Your task to perform on an android device: Open the web browser Image 0: 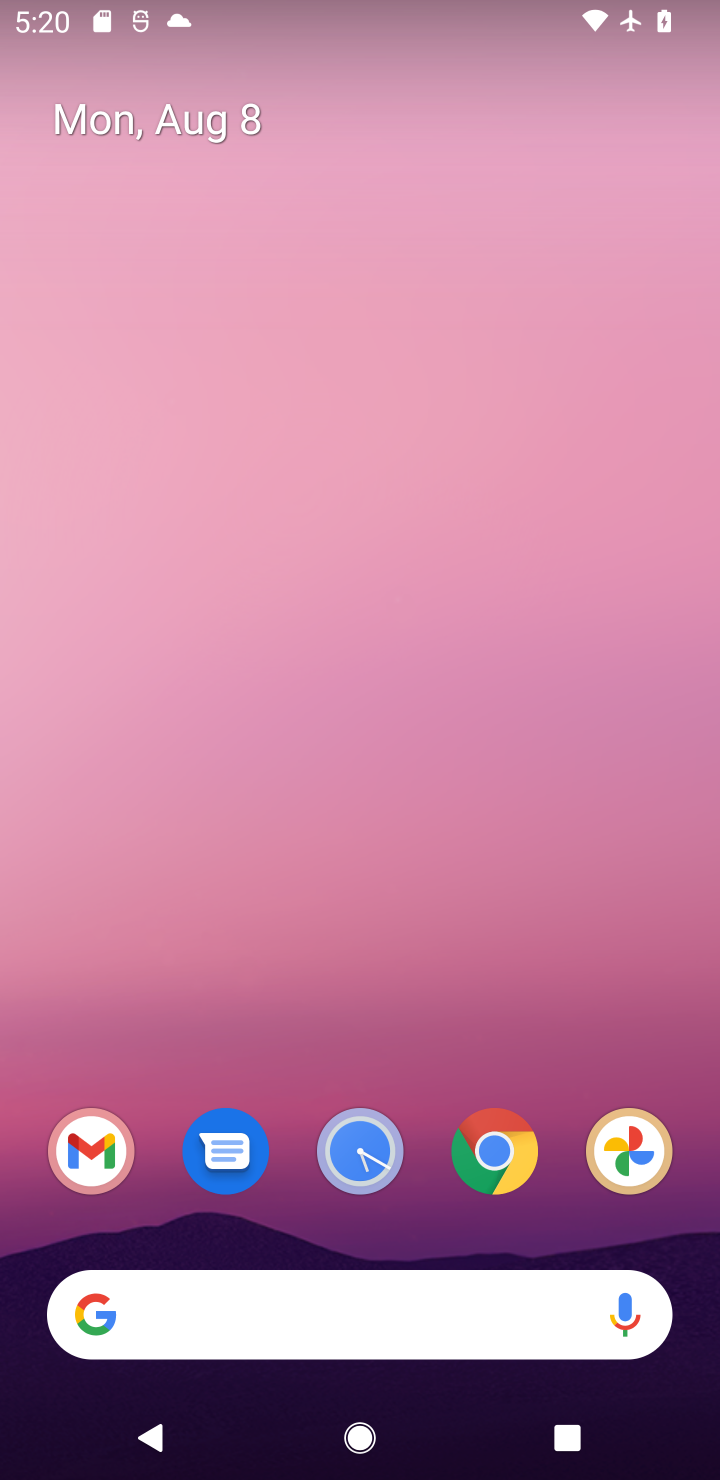
Step 0: click (497, 1165)
Your task to perform on an android device: Open the web browser Image 1: 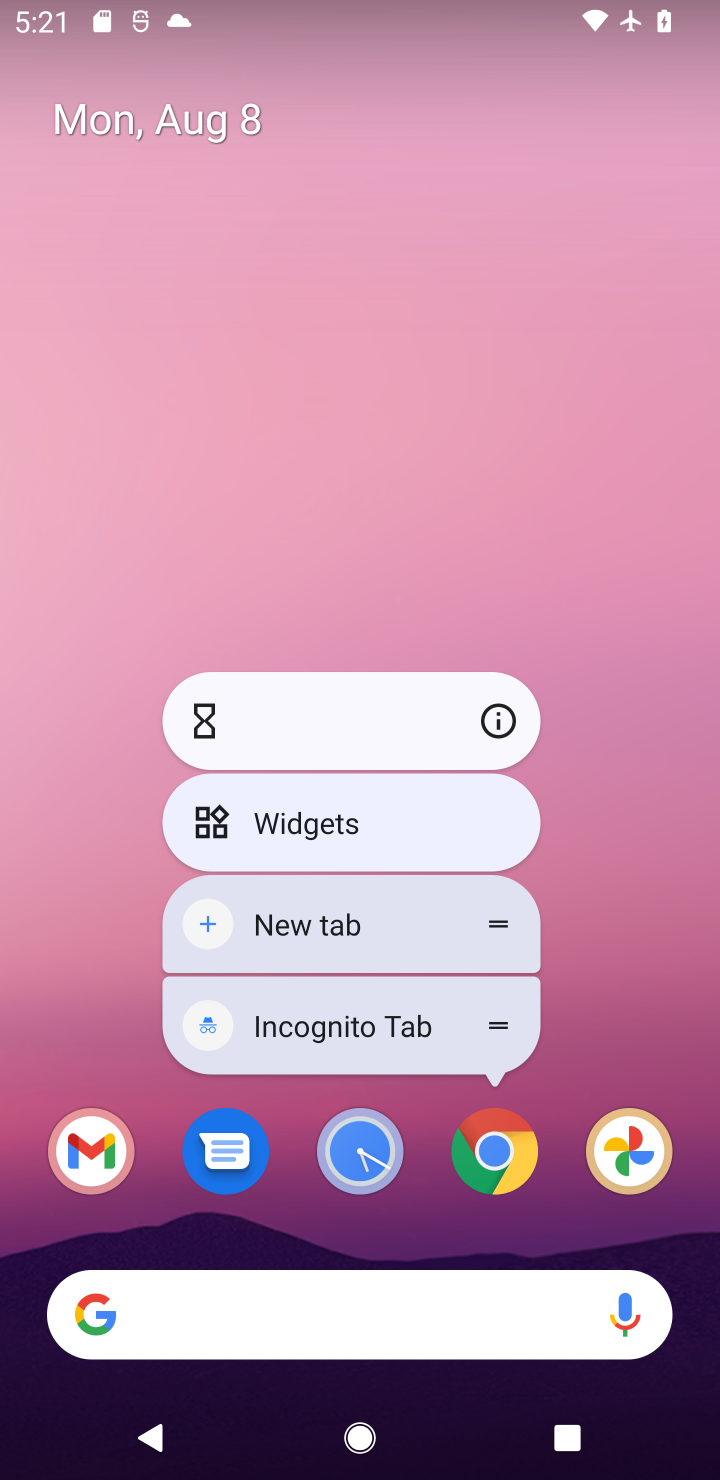
Step 1: click (517, 1130)
Your task to perform on an android device: Open the web browser Image 2: 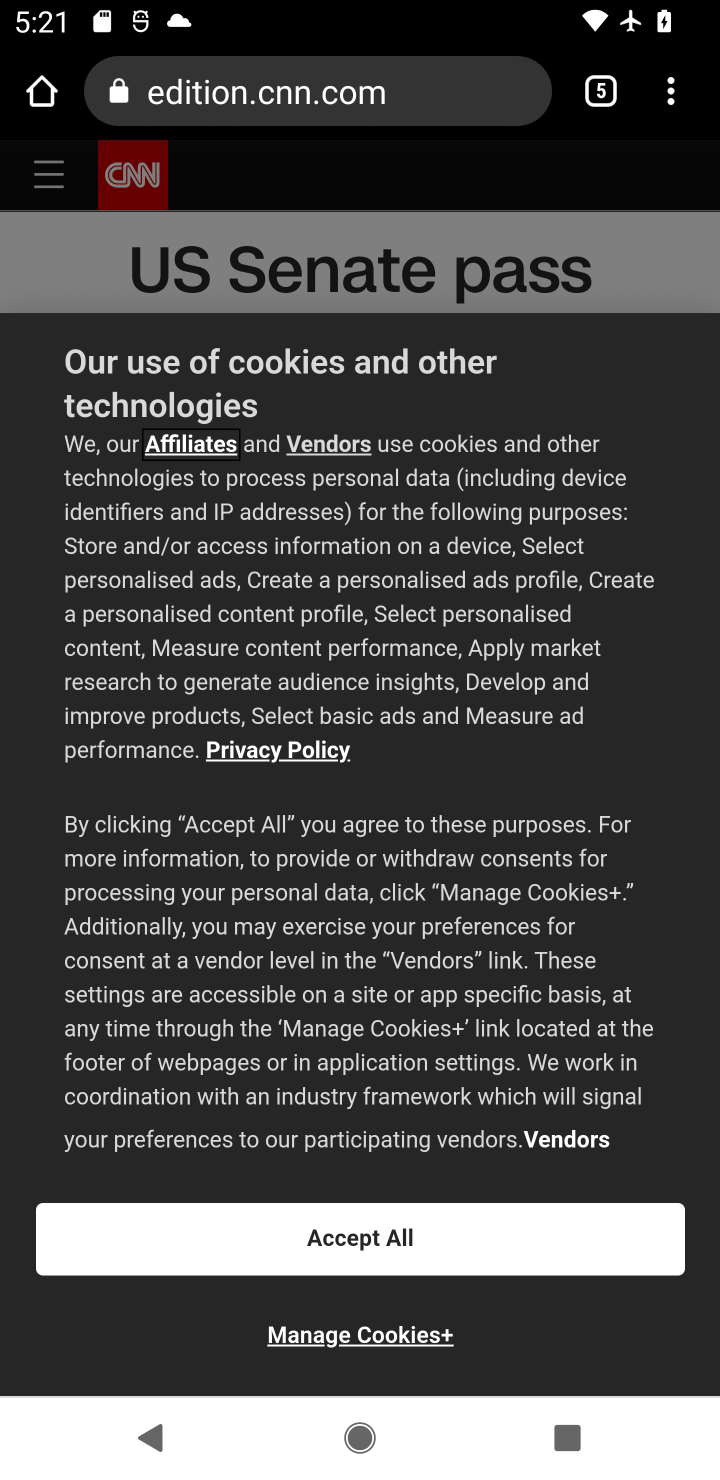
Step 2: task complete